Your task to perform on an android device: Open Youtube and go to the subscriptions tab Image 0: 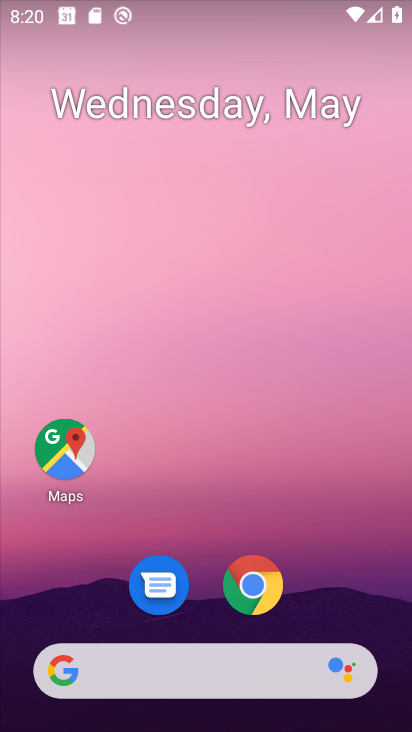
Step 0: click (206, 50)
Your task to perform on an android device: Open Youtube and go to the subscriptions tab Image 1: 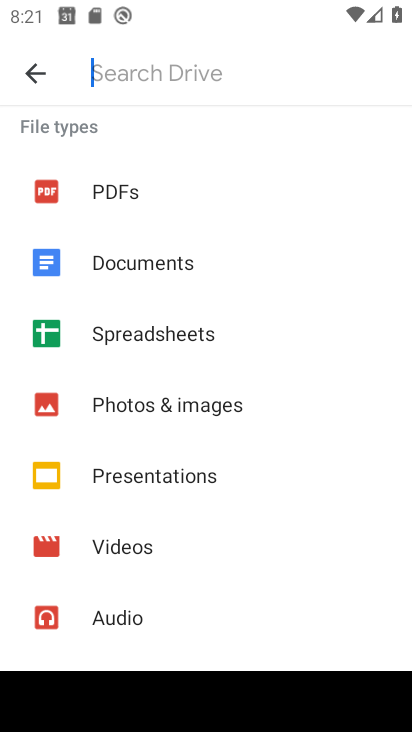
Step 1: press home button
Your task to perform on an android device: Open Youtube and go to the subscriptions tab Image 2: 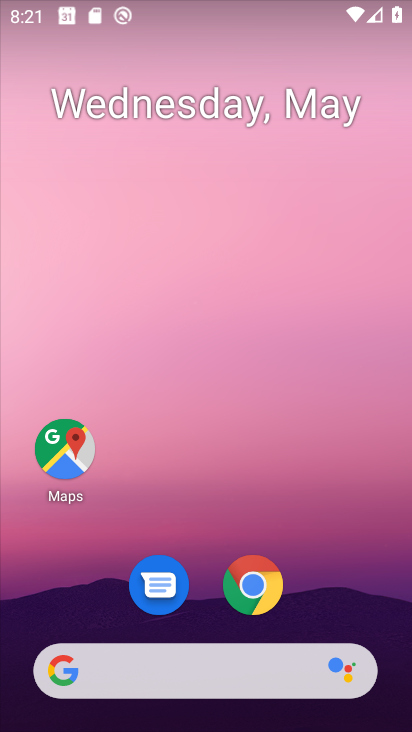
Step 2: drag from (294, 527) to (251, 51)
Your task to perform on an android device: Open Youtube and go to the subscriptions tab Image 3: 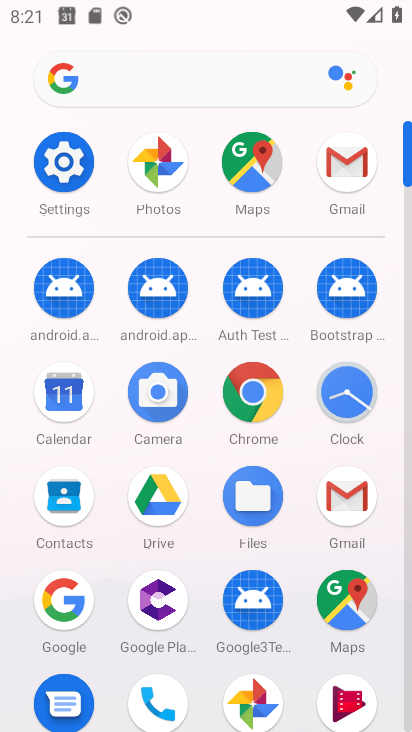
Step 3: drag from (197, 445) to (188, 81)
Your task to perform on an android device: Open Youtube and go to the subscriptions tab Image 4: 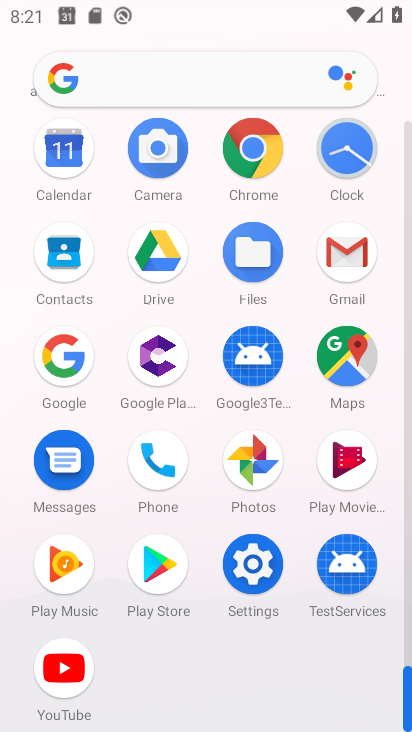
Step 4: click (74, 665)
Your task to perform on an android device: Open Youtube and go to the subscriptions tab Image 5: 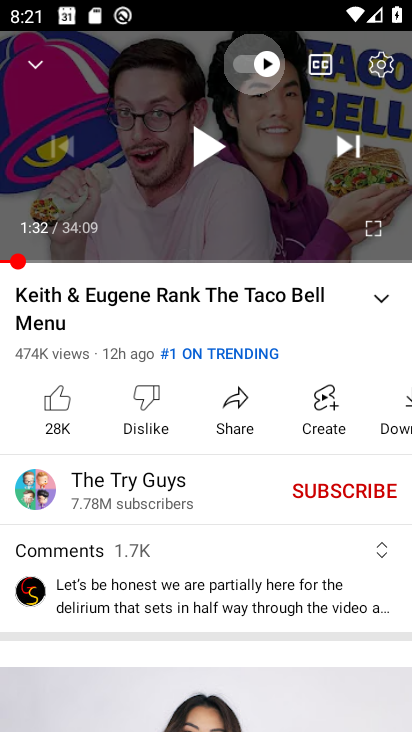
Step 5: press back button
Your task to perform on an android device: Open Youtube and go to the subscriptions tab Image 6: 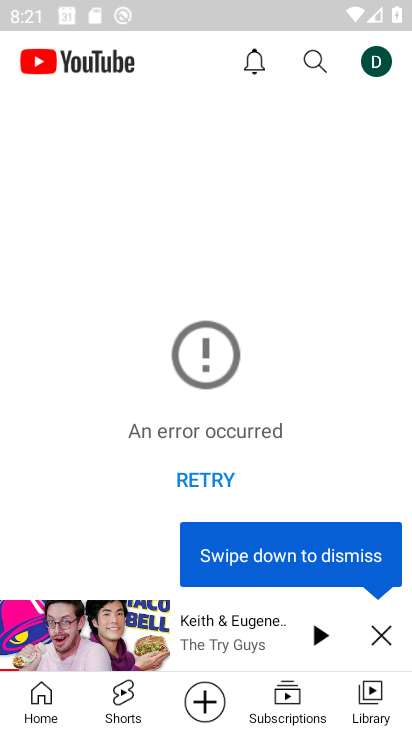
Step 6: click (287, 699)
Your task to perform on an android device: Open Youtube and go to the subscriptions tab Image 7: 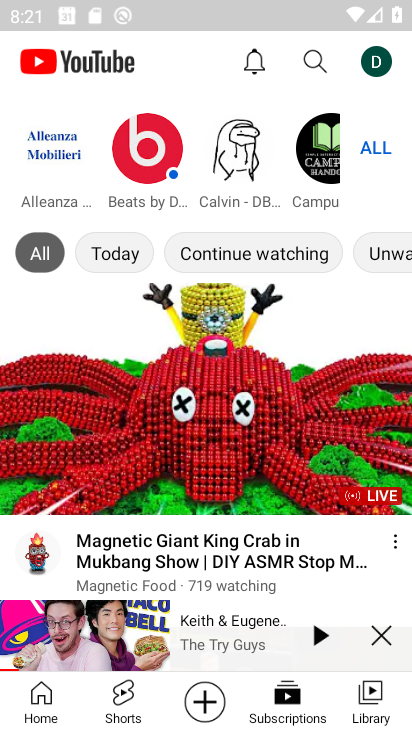
Step 7: task complete